Your task to perform on an android device: open wifi settings Image 0: 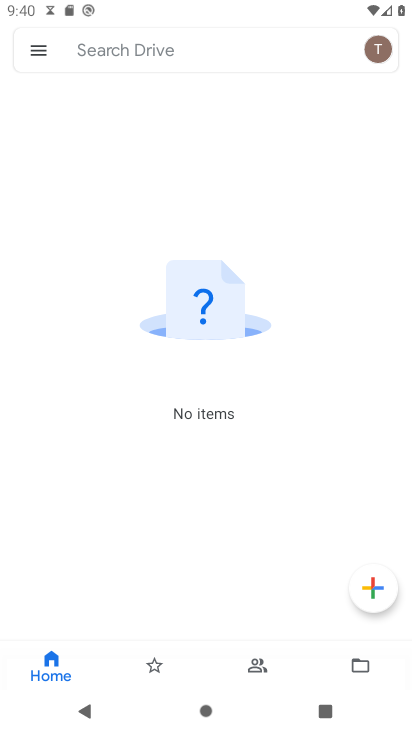
Step 0: press home button
Your task to perform on an android device: open wifi settings Image 1: 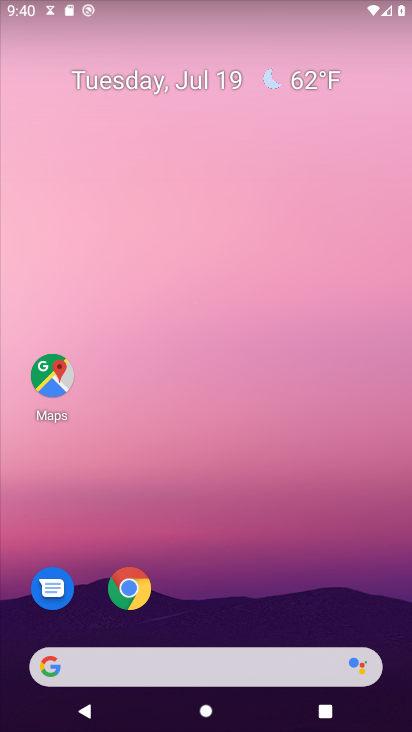
Step 1: drag from (218, 516) to (218, 291)
Your task to perform on an android device: open wifi settings Image 2: 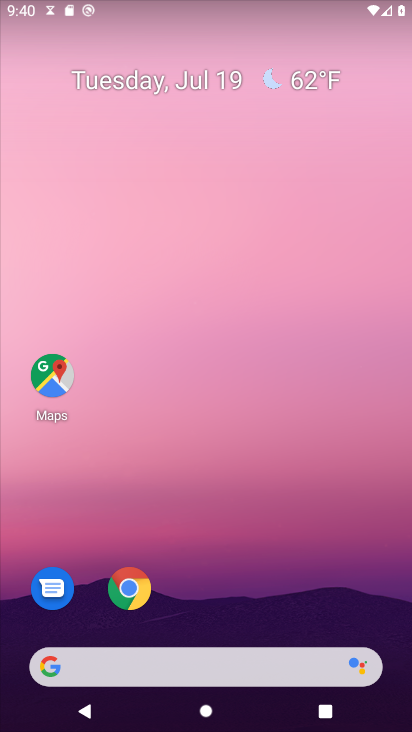
Step 2: drag from (202, 593) to (362, 8)
Your task to perform on an android device: open wifi settings Image 3: 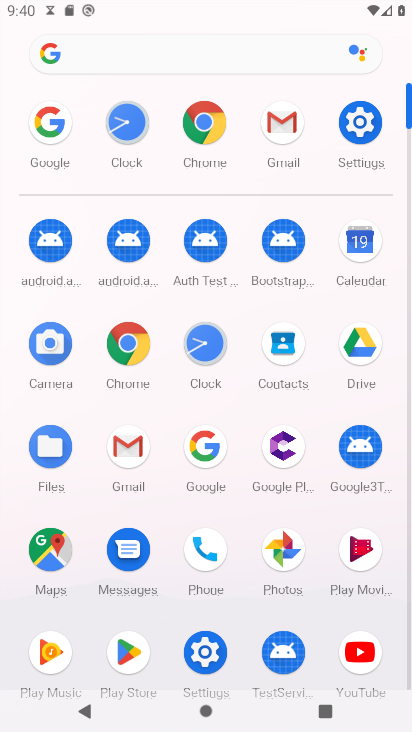
Step 3: click (357, 135)
Your task to perform on an android device: open wifi settings Image 4: 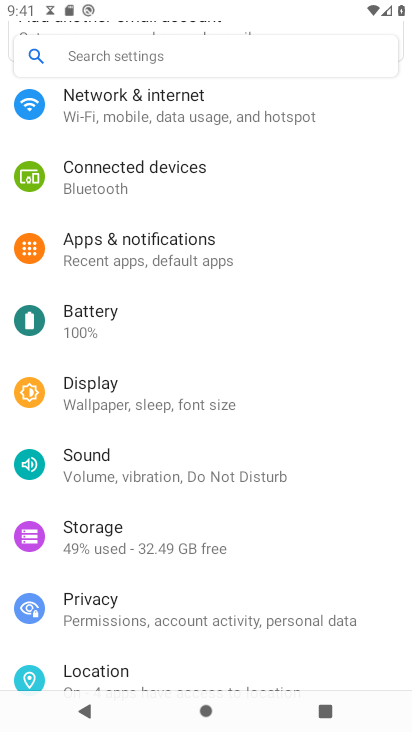
Step 4: click (132, 112)
Your task to perform on an android device: open wifi settings Image 5: 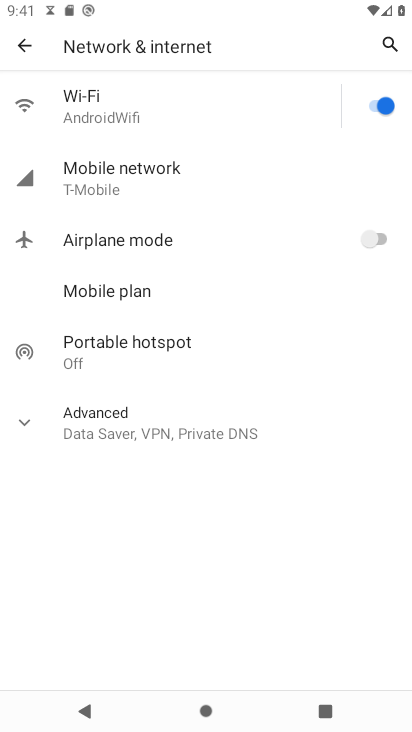
Step 5: task complete